Your task to perform on an android device: visit the assistant section in the google photos Image 0: 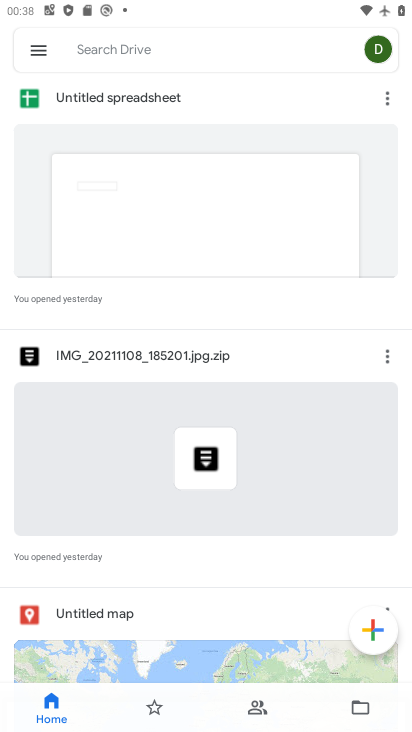
Step 0: press home button
Your task to perform on an android device: visit the assistant section in the google photos Image 1: 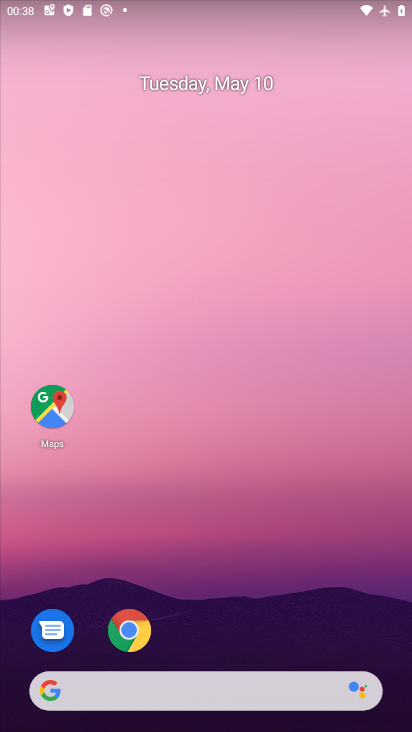
Step 1: drag from (199, 728) to (193, 72)
Your task to perform on an android device: visit the assistant section in the google photos Image 2: 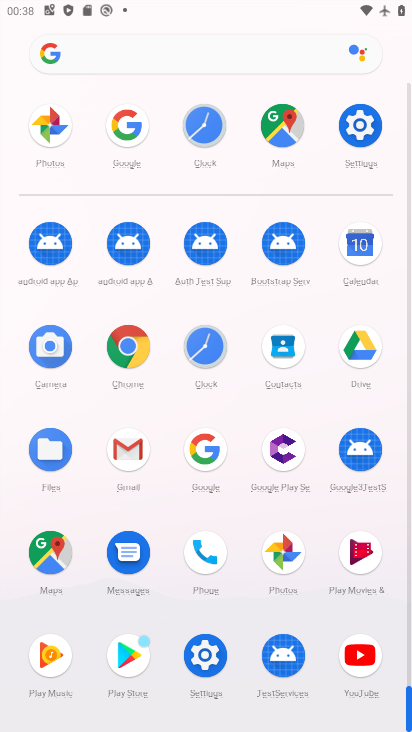
Step 2: click (290, 560)
Your task to perform on an android device: visit the assistant section in the google photos Image 3: 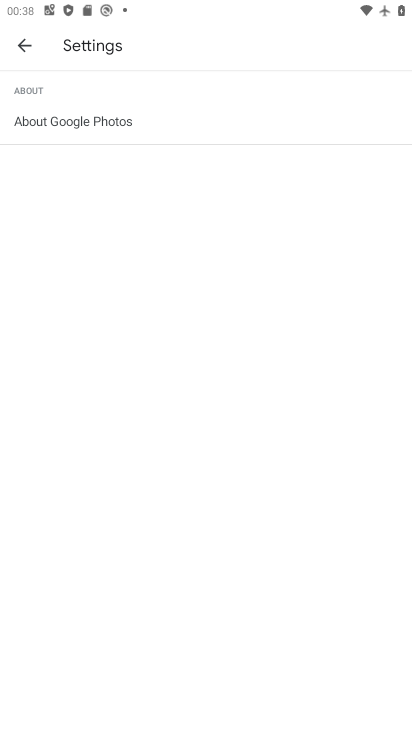
Step 3: click (24, 48)
Your task to perform on an android device: visit the assistant section in the google photos Image 4: 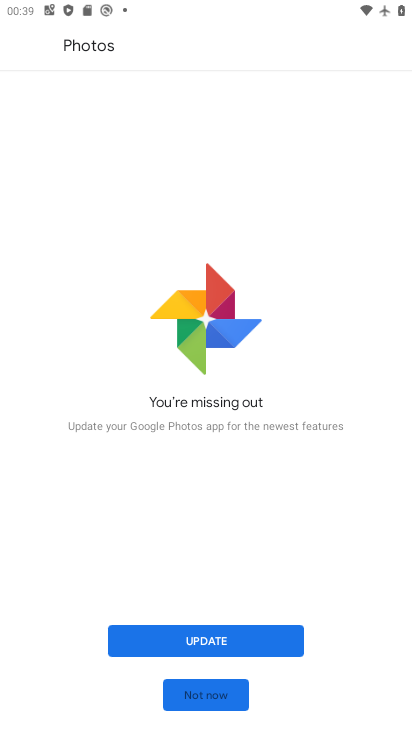
Step 4: task complete